Your task to perform on an android device: refresh tabs in the chrome app Image 0: 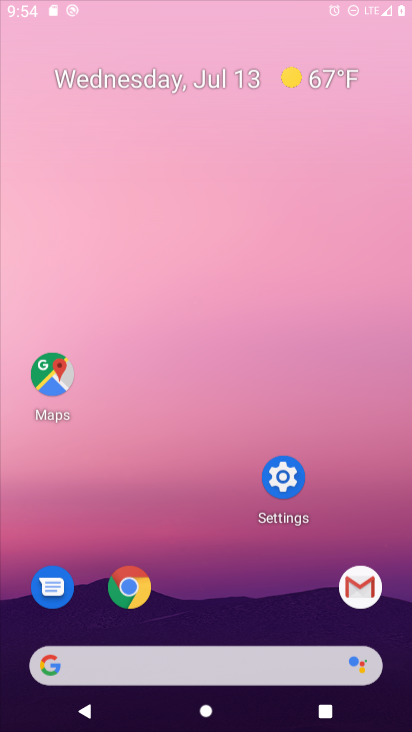
Step 0: press home button
Your task to perform on an android device: refresh tabs in the chrome app Image 1: 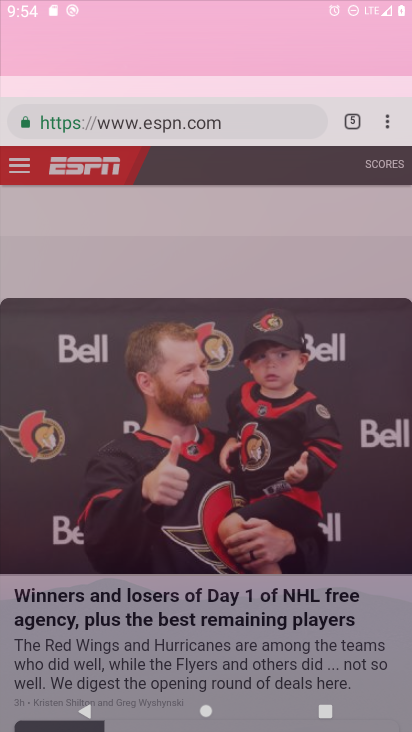
Step 1: drag from (262, 686) to (350, 118)
Your task to perform on an android device: refresh tabs in the chrome app Image 2: 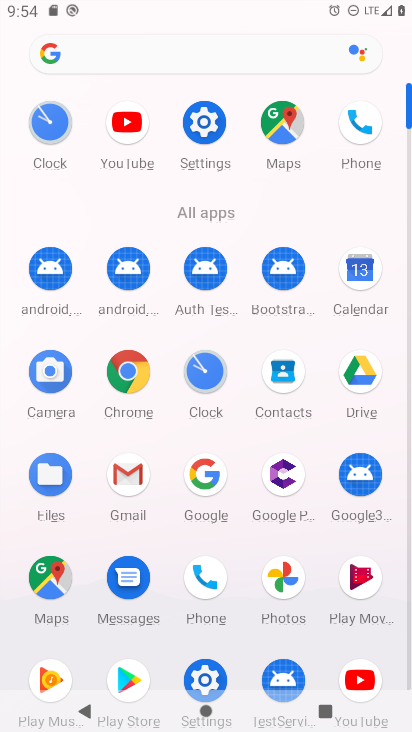
Step 2: click (126, 674)
Your task to perform on an android device: refresh tabs in the chrome app Image 3: 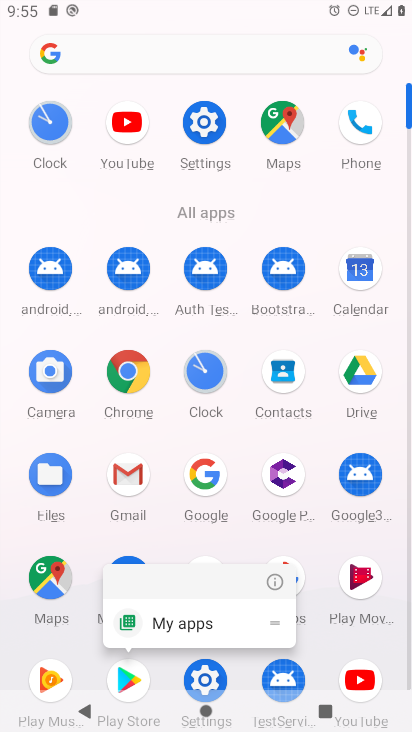
Step 3: click (122, 391)
Your task to perform on an android device: refresh tabs in the chrome app Image 4: 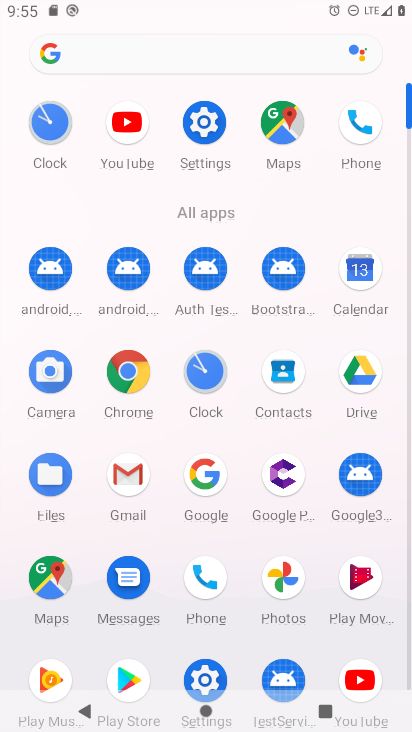
Step 4: click (121, 369)
Your task to perform on an android device: refresh tabs in the chrome app Image 5: 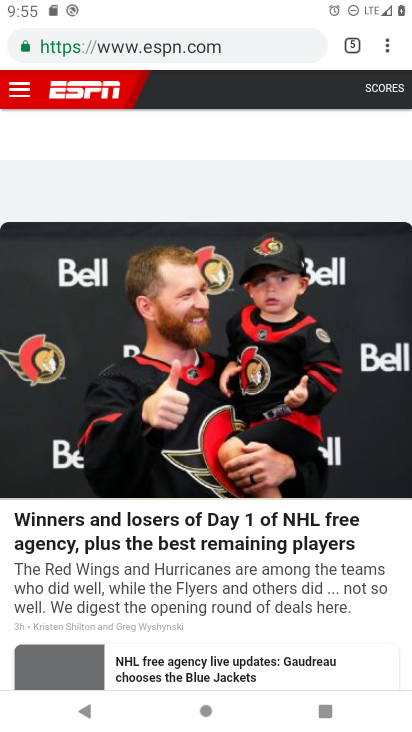
Step 5: click (385, 54)
Your task to perform on an android device: refresh tabs in the chrome app Image 6: 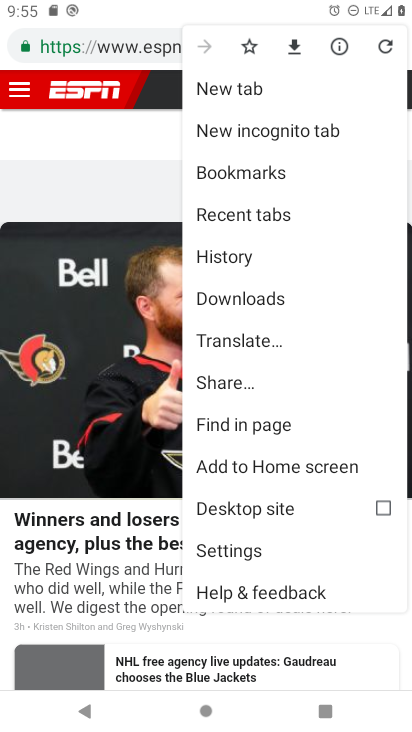
Step 6: click (390, 45)
Your task to perform on an android device: refresh tabs in the chrome app Image 7: 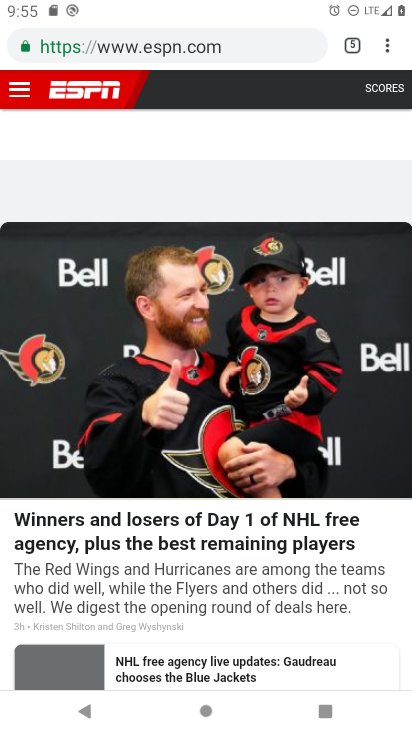
Step 7: task complete